Your task to perform on an android device: Open Youtube and go to "Your channel" Image 0: 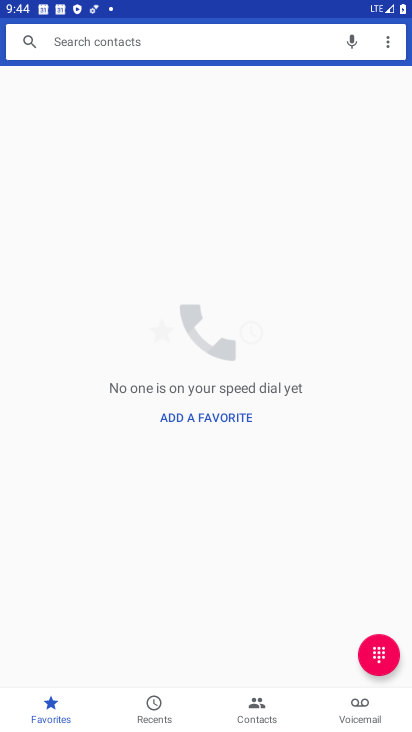
Step 0: drag from (266, 525) to (392, 230)
Your task to perform on an android device: Open Youtube and go to "Your channel" Image 1: 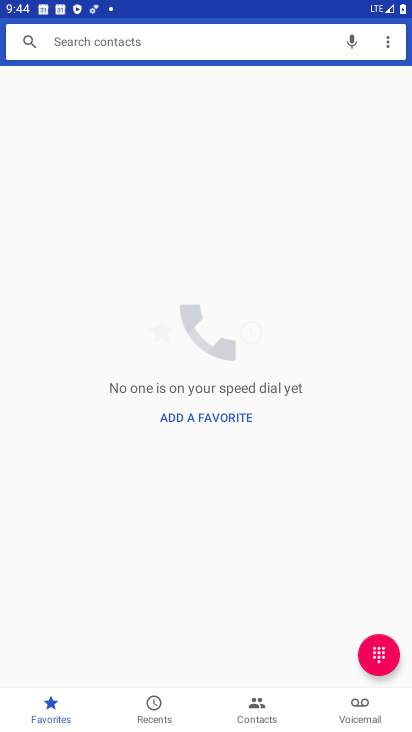
Step 1: press home button
Your task to perform on an android device: Open Youtube and go to "Your channel" Image 2: 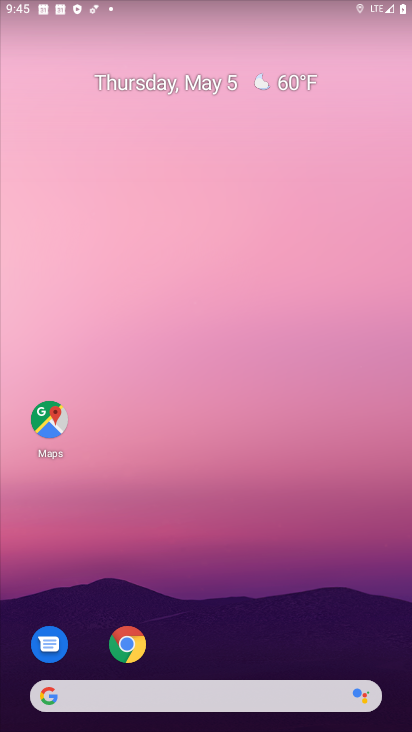
Step 2: drag from (204, 655) to (259, 96)
Your task to perform on an android device: Open Youtube and go to "Your channel" Image 3: 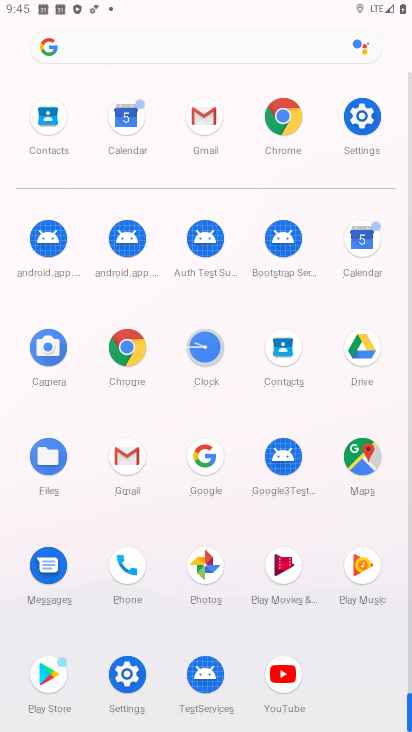
Step 3: click (276, 675)
Your task to perform on an android device: Open Youtube and go to "Your channel" Image 4: 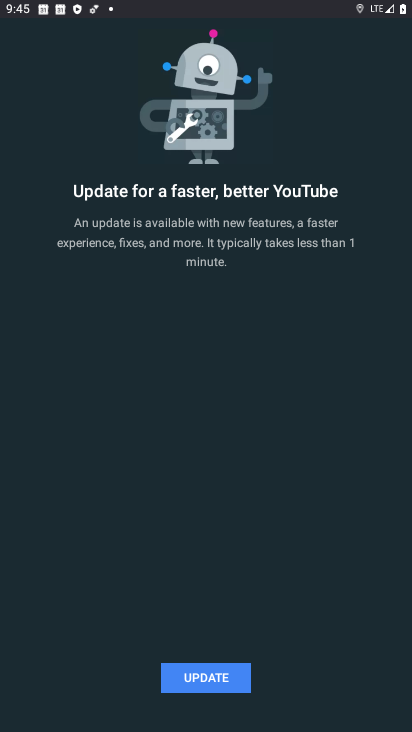
Step 4: click (207, 684)
Your task to perform on an android device: Open Youtube and go to "Your channel" Image 5: 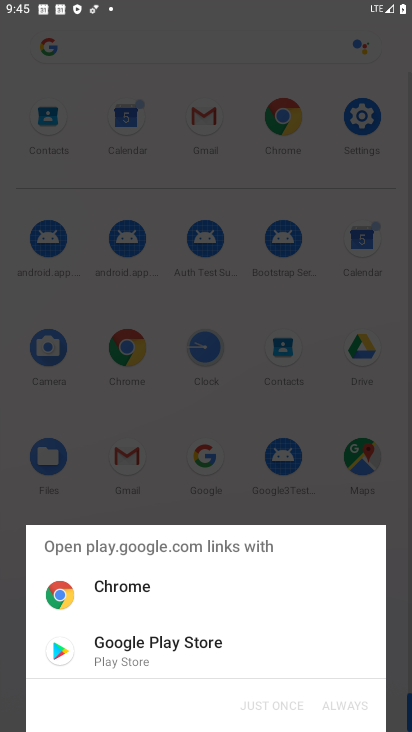
Step 5: click (155, 640)
Your task to perform on an android device: Open Youtube and go to "Your channel" Image 6: 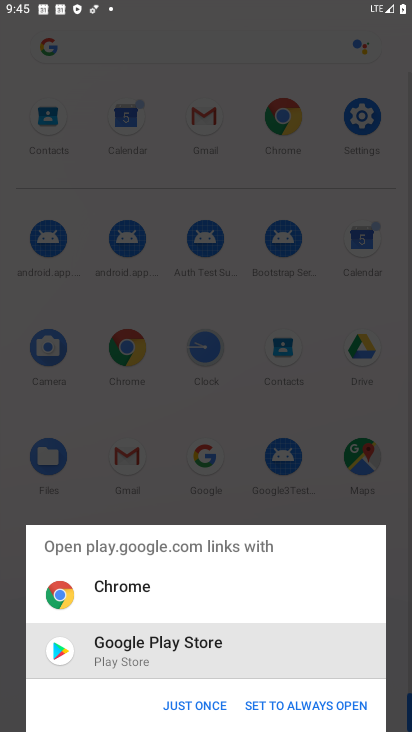
Step 6: click (189, 710)
Your task to perform on an android device: Open Youtube and go to "Your channel" Image 7: 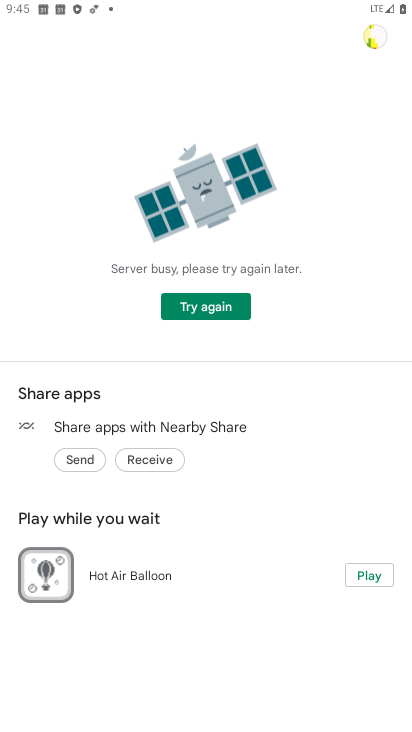
Step 7: drag from (233, 546) to (283, 319)
Your task to perform on an android device: Open Youtube and go to "Your channel" Image 8: 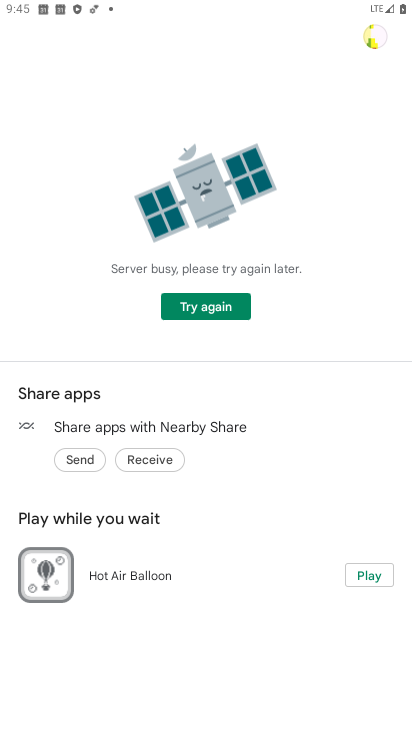
Step 8: click (208, 292)
Your task to perform on an android device: Open Youtube and go to "Your channel" Image 9: 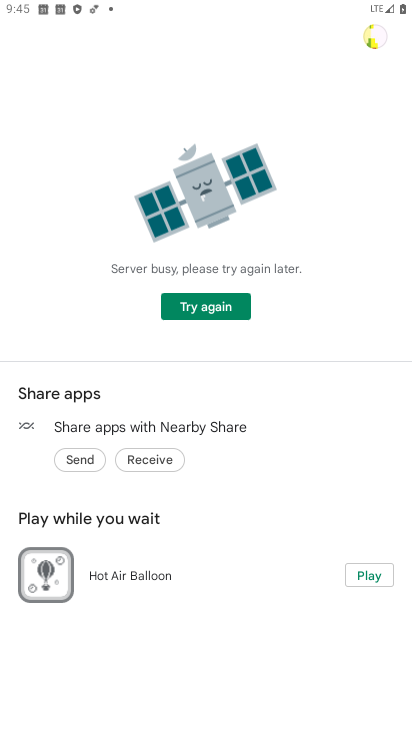
Step 9: click (206, 296)
Your task to perform on an android device: Open Youtube and go to "Your channel" Image 10: 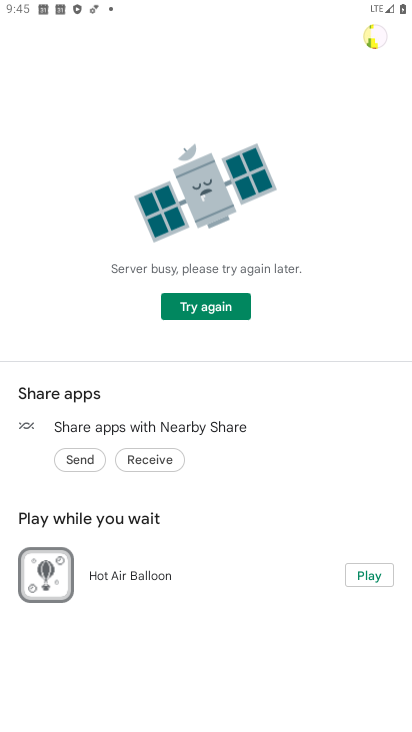
Step 10: click (200, 274)
Your task to perform on an android device: Open Youtube and go to "Your channel" Image 11: 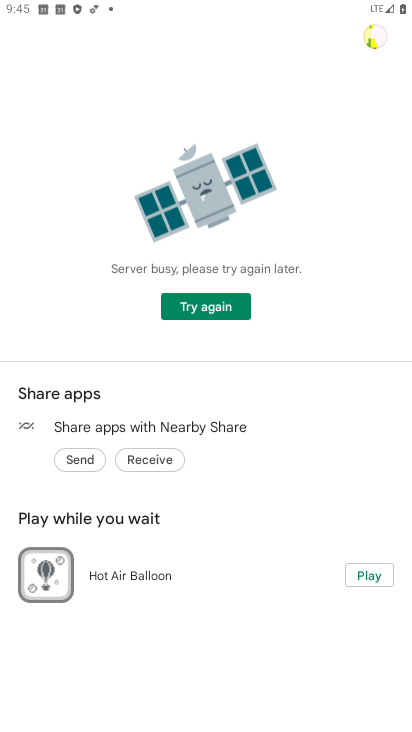
Step 11: click (200, 274)
Your task to perform on an android device: Open Youtube and go to "Your channel" Image 12: 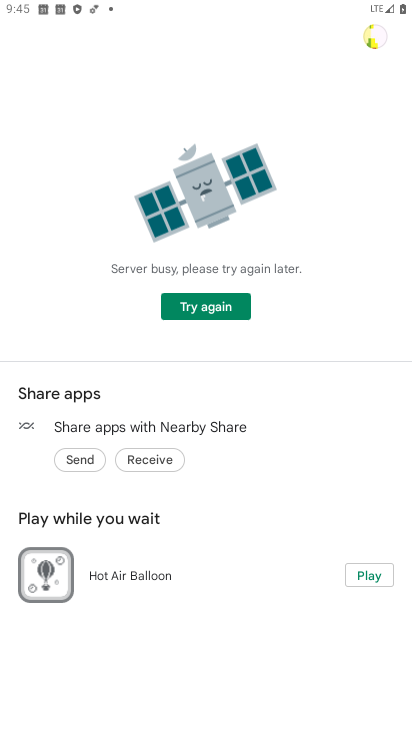
Step 12: click (200, 274)
Your task to perform on an android device: Open Youtube and go to "Your channel" Image 13: 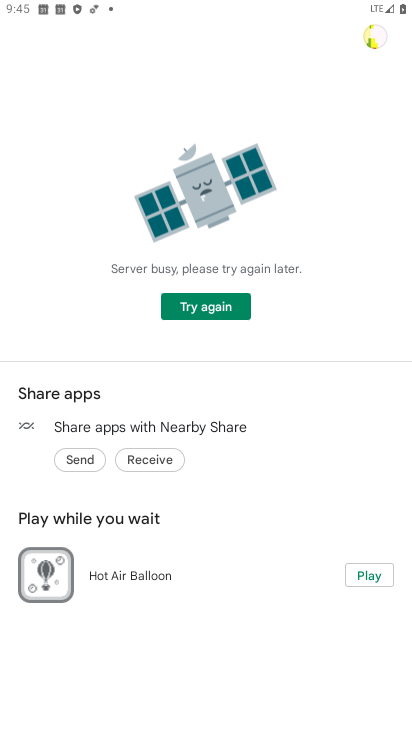
Step 13: click (182, 304)
Your task to perform on an android device: Open Youtube and go to "Your channel" Image 14: 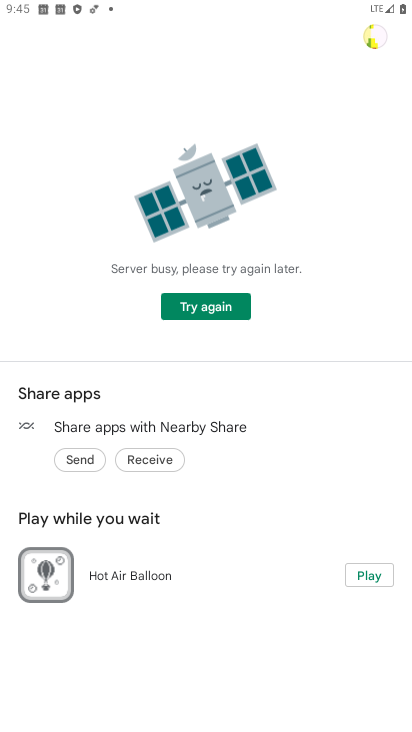
Step 14: task complete